Your task to perform on an android device: toggle notification dots Image 0: 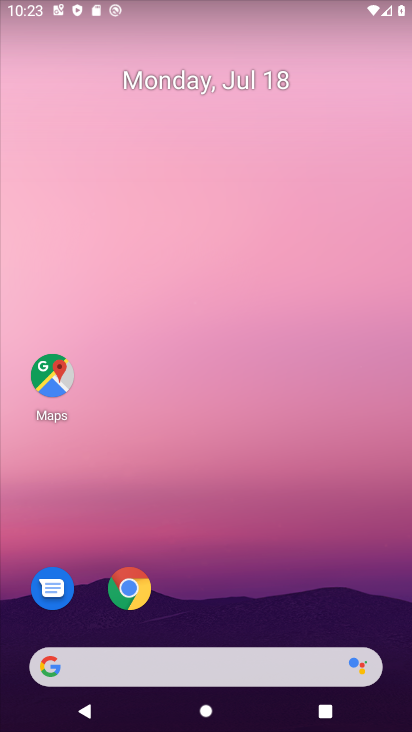
Step 0: drag from (241, 727) to (191, 134)
Your task to perform on an android device: toggle notification dots Image 1: 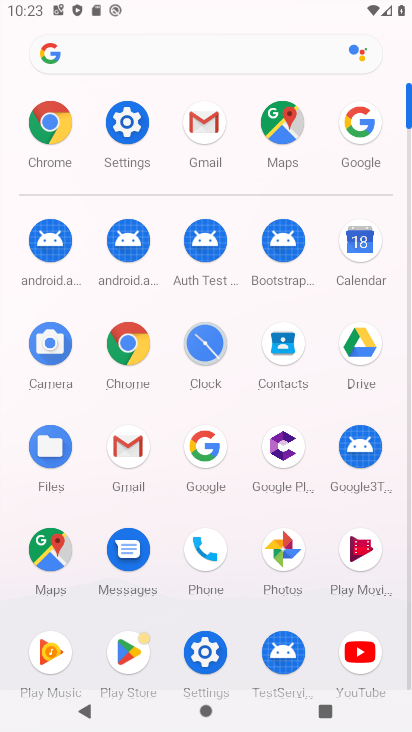
Step 1: click (129, 128)
Your task to perform on an android device: toggle notification dots Image 2: 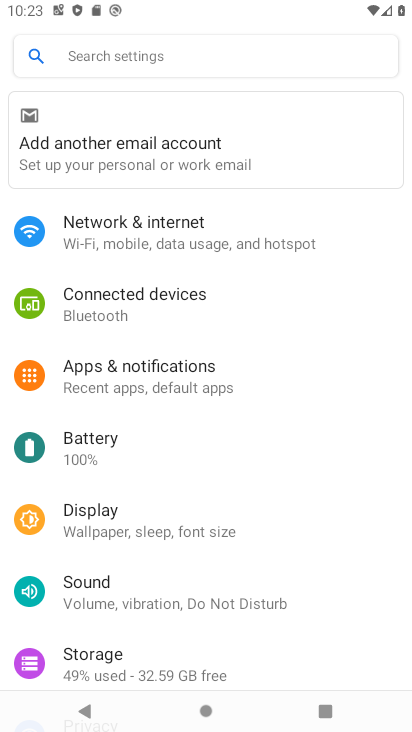
Step 2: click (117, 370)
Your task to perform on an android device: toggle notification dots Image 3: 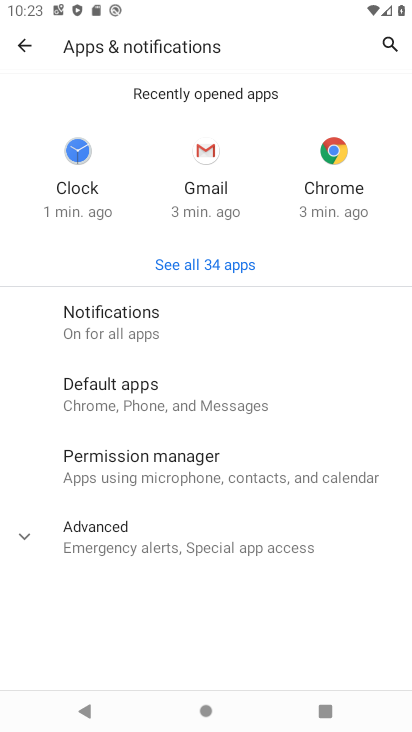
Step 3: click (103, 327)
Your task to perform on an android device: toggle notification dots Image 4: 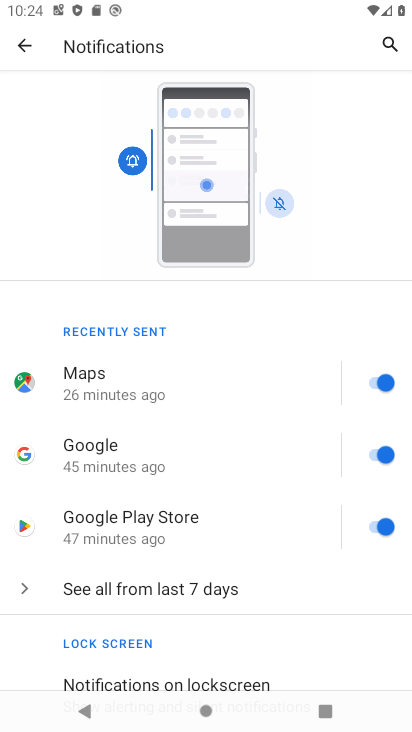
Step 4: drag from (273, 664) to (270, 620)
Your task to perform on an android device: toggle notification dots Image 5: 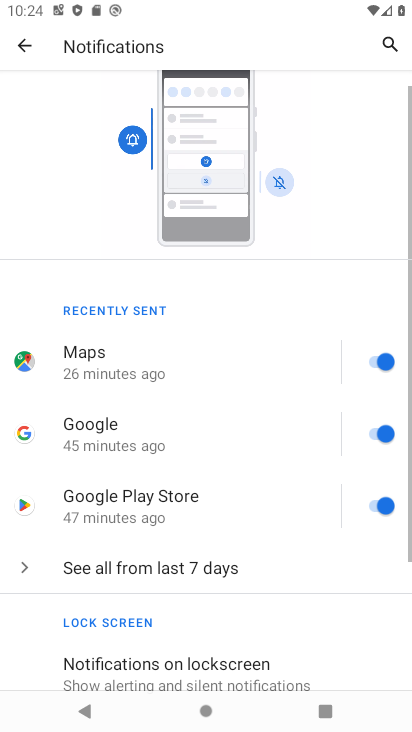
Step 5: drag from (259, 433) to (259, 358)
Your task to perform on an android device: toggle notification dots Image 6: 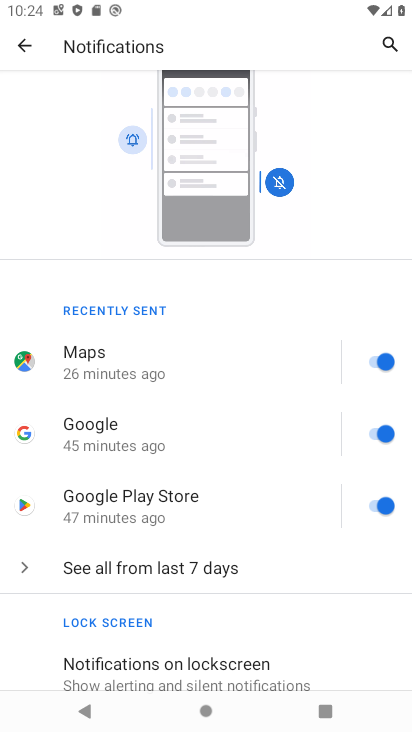
Step 6: drag from (257, 664) to (257, 613)
Your task to perform on an android device: toggle notification dots Image 7: 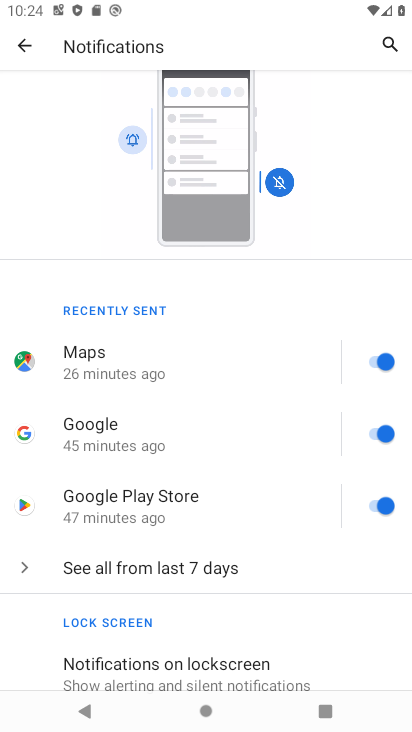
Step 7: drag from (247, 545) to (244, 377)
Your task to perform on an android device: toggle notification dots Image 8: 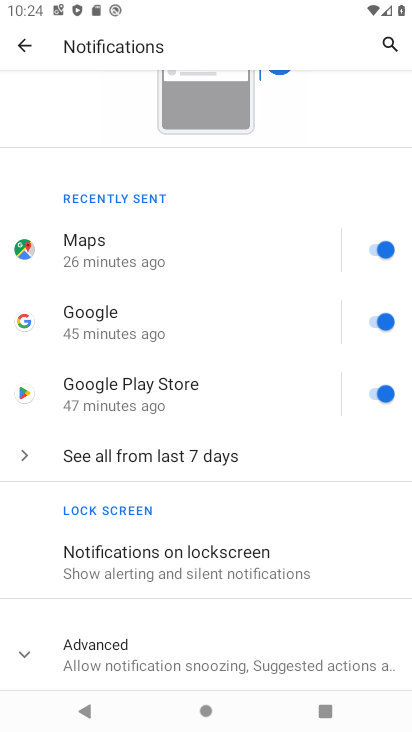
Step 8: click (169, 659)
Your task to perform on an android device: toggle notification dots Image 9: 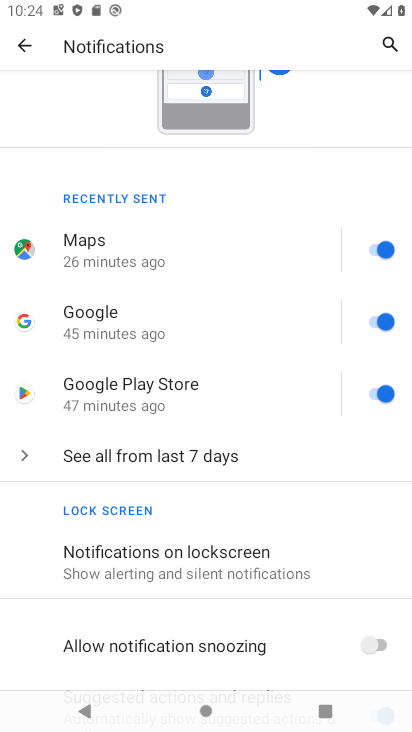
Step 9: drag from (280, 655) to (280, 394)
Your task to perform on an android device: toggle notification dots Image 10: 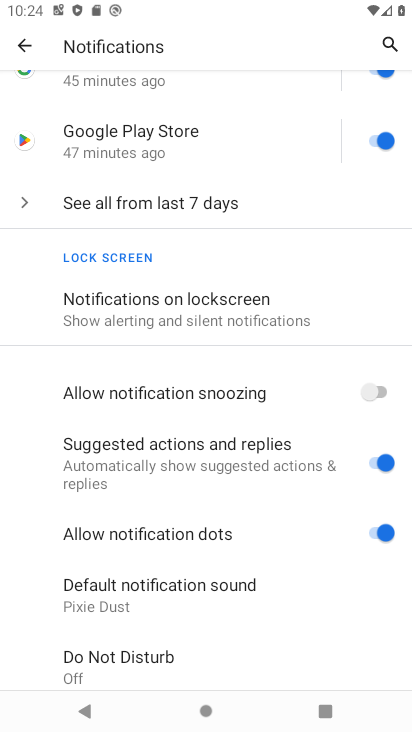
Step 10: click (384, 528)
Your task to perform on an android device: toggle notification dots Image 11: 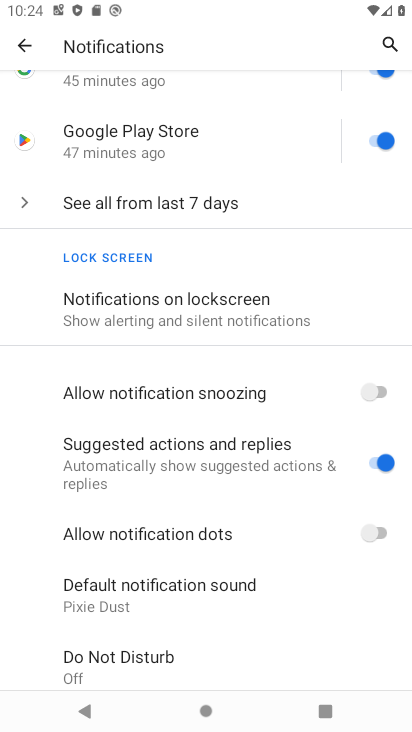
Step 11: task complete